Your task to perform on an android device: check google app version Image 0: 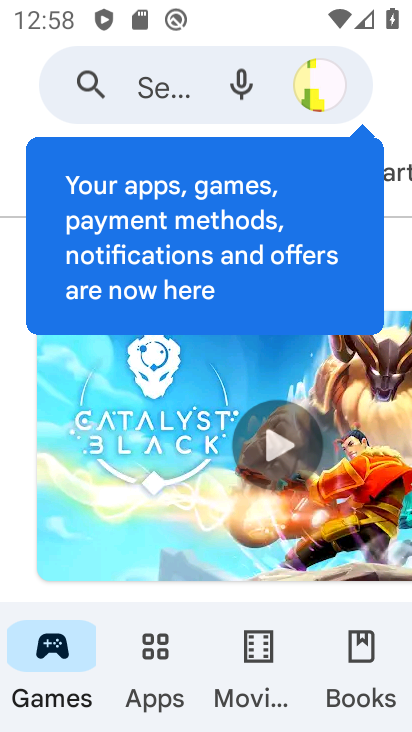
Step 0: press home button
Your task to perform on an android device: check google app version Image 1: 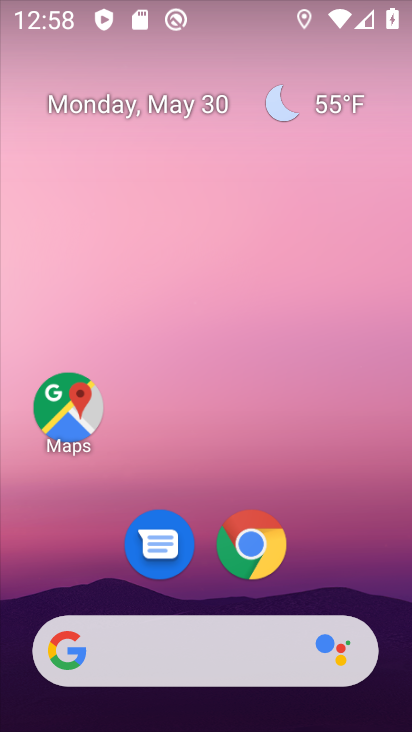
Step 1: drag from (343, 550) to (330, 2)
Your task to perform on an android device: check google app version Image 2: 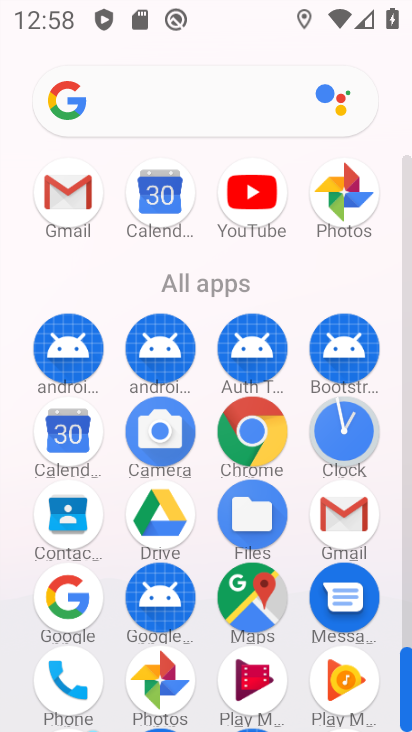
Step 2: drag from (192, 300) to (184, 161)
Your task to perform on an android device: check google app version Image 3: 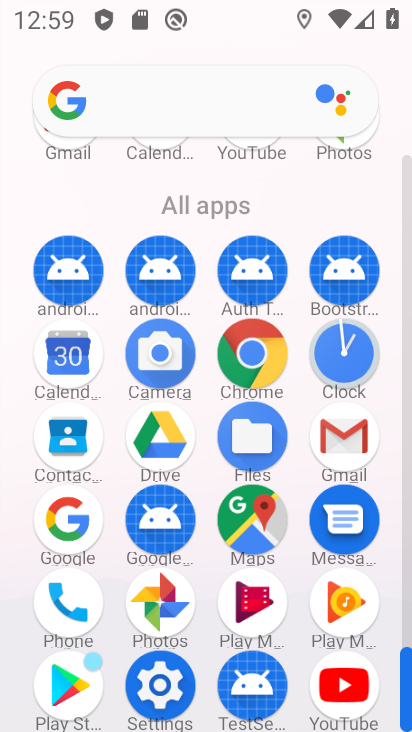
Step 3: drag from (204, 593) to (194, 381)
Your task to perform on an android device: check google app version Image 4: 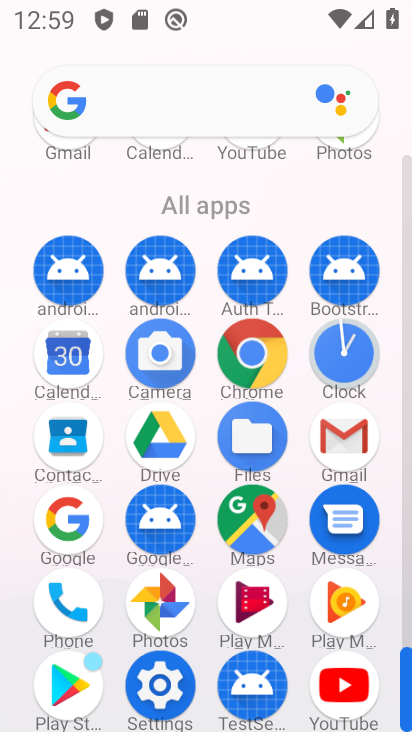
Step 4: click (68, 520)
Your task to perform on an android device: check google app version Image 5: 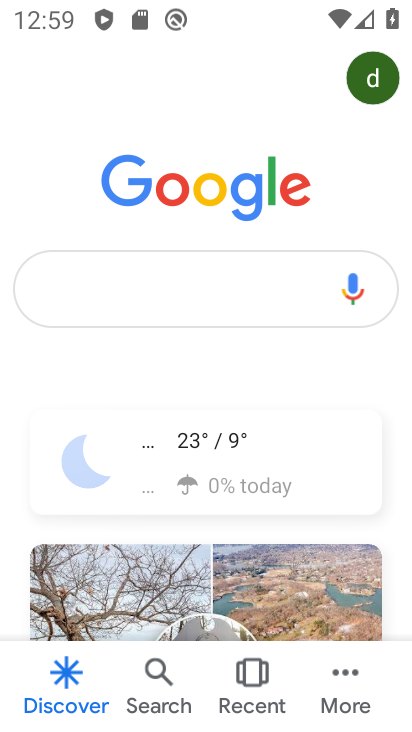
Step 5: press back button
Your task to perform on an android device: check google app version Image 6: 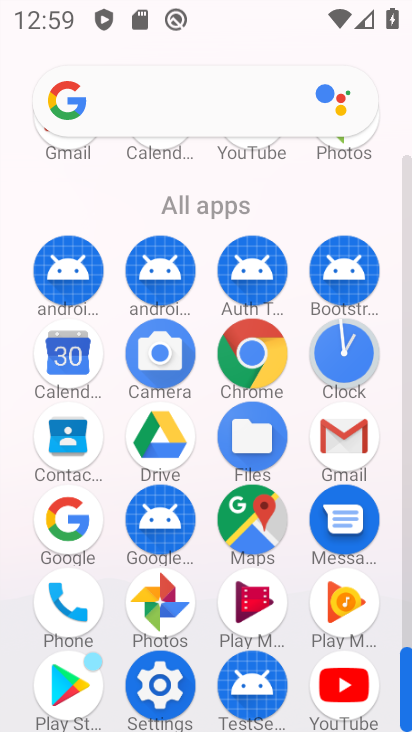
Step 6: drag from (202, 463) to (230, 300)
Your task to perform on an android device: check google app version Image 7: 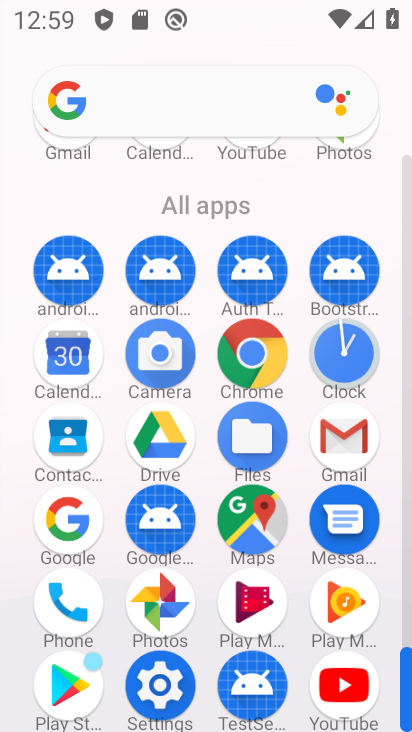
Step 7: click (60, 511)
Your task to perform on an android device: check google app version Image 8: 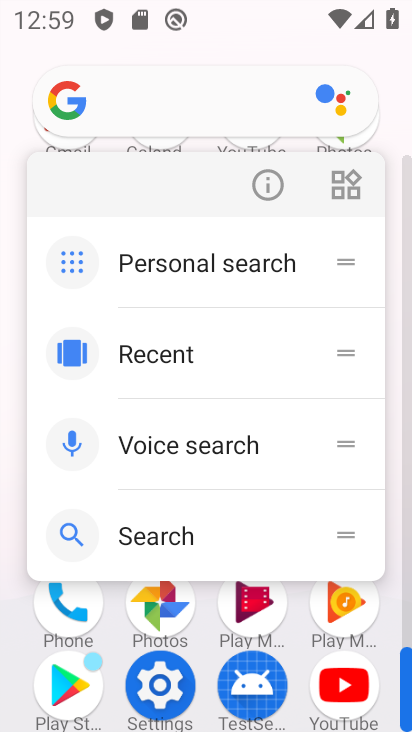
Step 8: click (276, 169)
Your task to perform on an android device: check google app version Image 9: 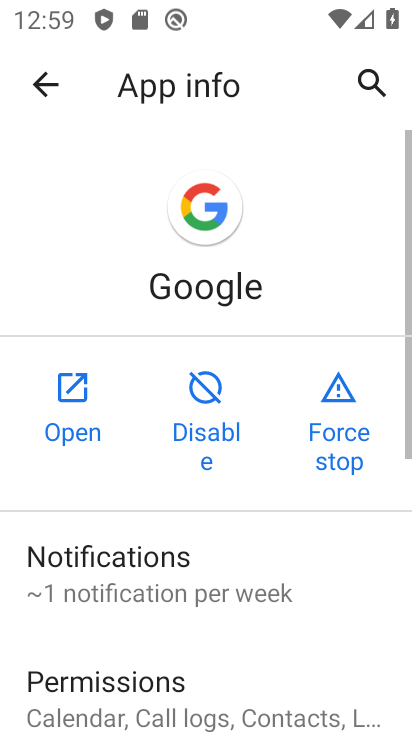
Step 9: drag from (276, 646) to (232, 126)
Your task to perform on an android device: check google app version Image 10: 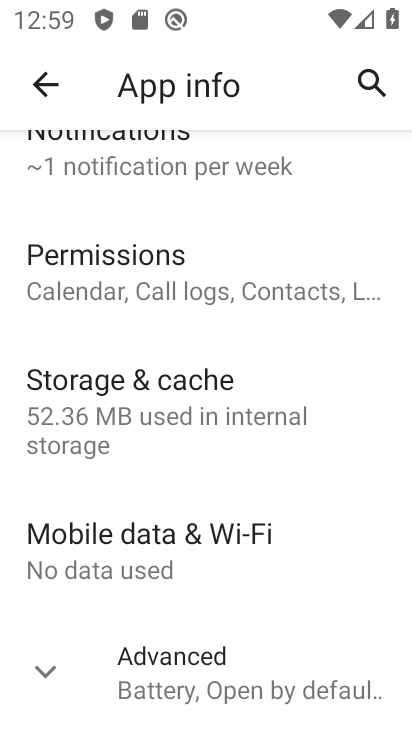
Step 10: click (137, 665)
Your task to perform on an android device: check google app version Image 11: 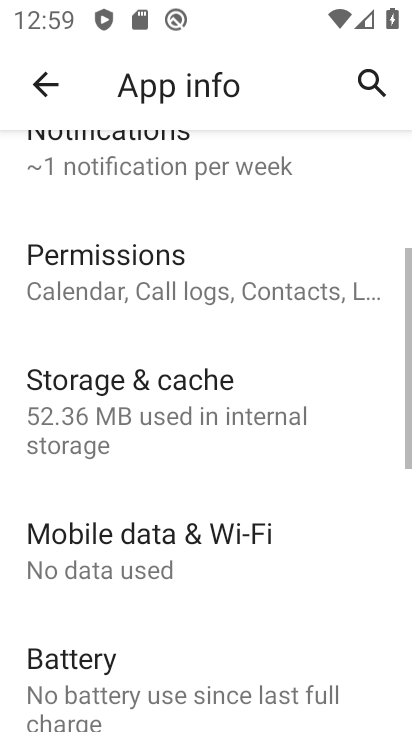
Step 11: task complete